Your task to perform on an android device: Show me recent news Image 0: 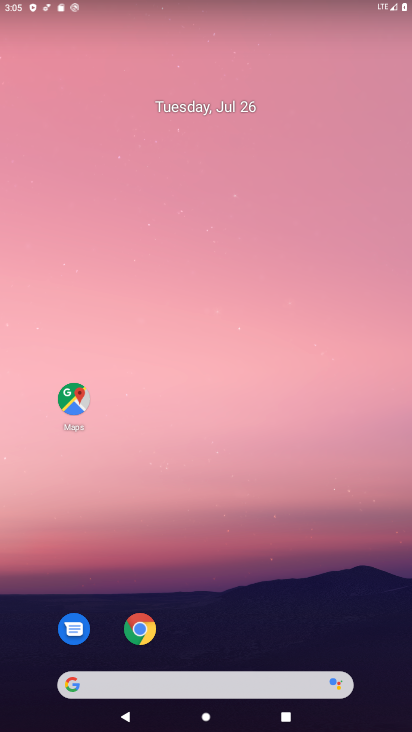
Step 0: drag from (1, 202) to (405, 201)
Your task to perform on an android device: Show me recent news Image 1: 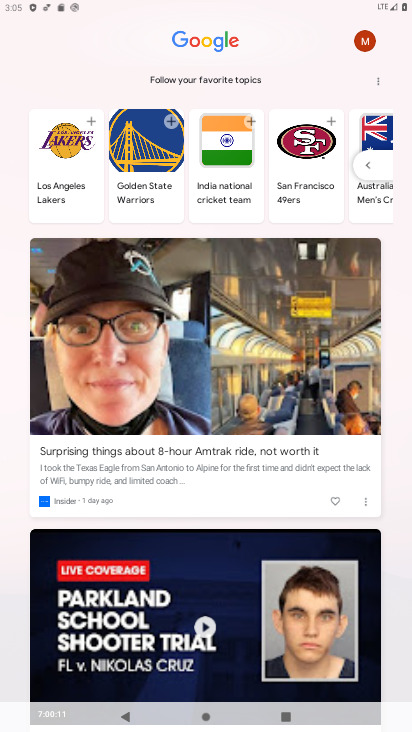
Step 1: task complete